Your task to perform on an android device: uninstall "File Manager" Image 0: 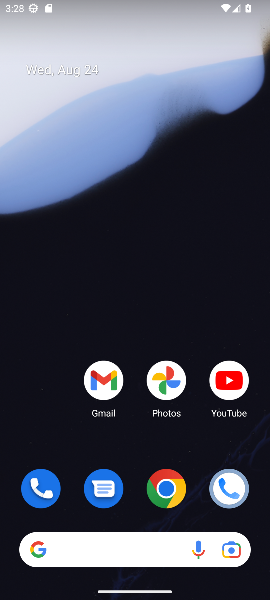
Step 0: drag from (128, 430) to (133, 57)
Your task to perform on an android device: uninstall "File Manager" Image 1: 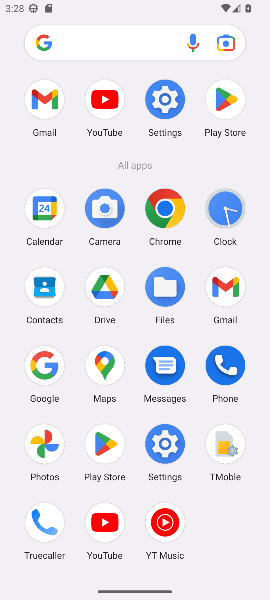
Step 1: click (166, 284)
Your task to perform on an android device: uninstall "File Manager" Image 2: 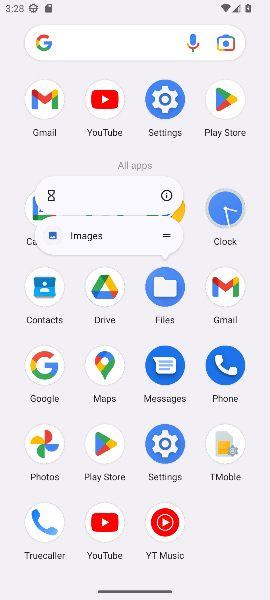
Step 2: task complete